Your task to perform on an android device: turn on airplane mode Image 0: 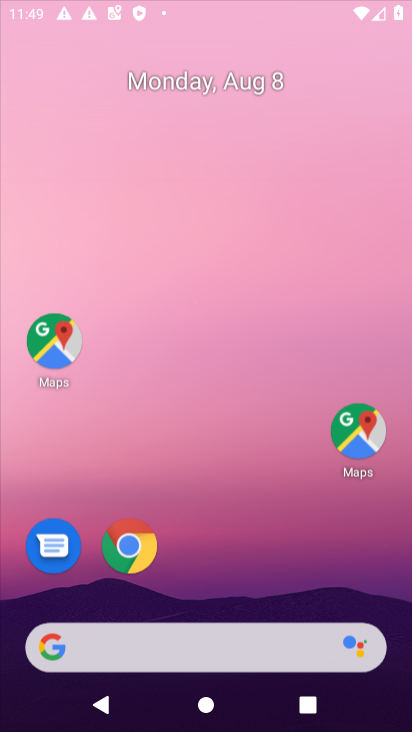
Step 0: click (216, 228)
Your task to perform on an android device: turn on airplane mode Image 1: 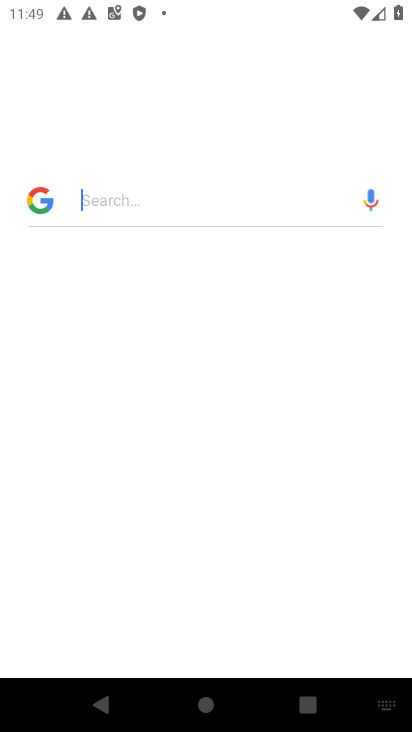
Step 1: drag from (261, 575) to (228, 141)
Your task to perform on an android device: turn on airplane mode Image 2: 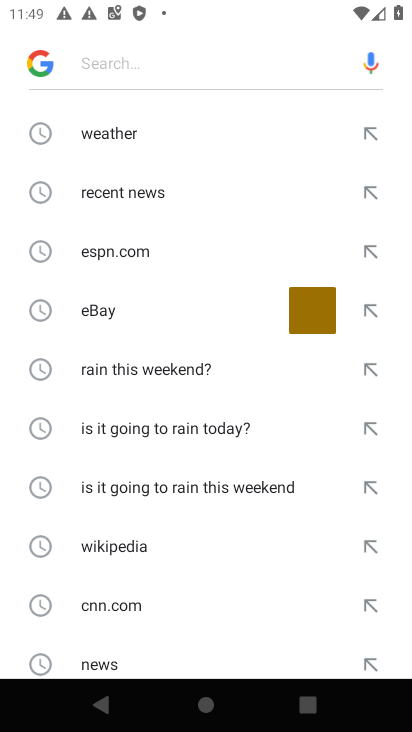
Step 2: press back button
Your task to perform on an android device: turn on airplane mode Image 3: 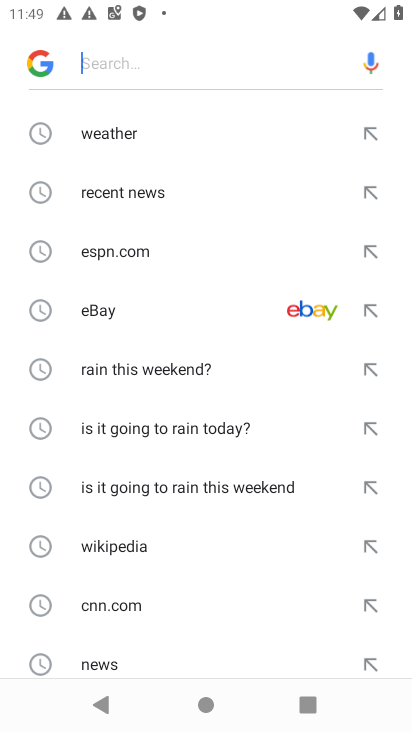
Step 3: press back button
Your task to perform on an android device: turn on airplane mode Image 4: 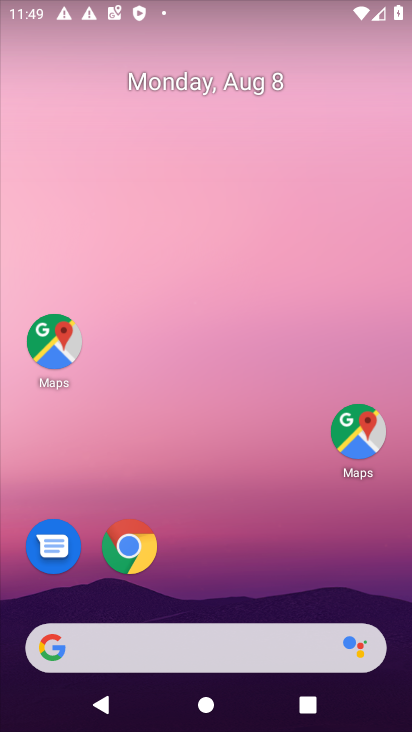
Step 4: drag from (221, 625) to (215, 139)
Your task to perform on an android device: turn on airplane mode Image 5: 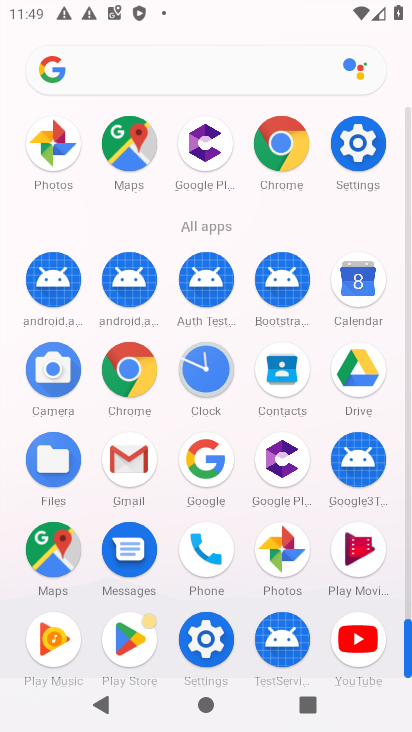
Step 5: click (351, 143)
Your task to perform on an android device: turn on airplane mode Image 6: 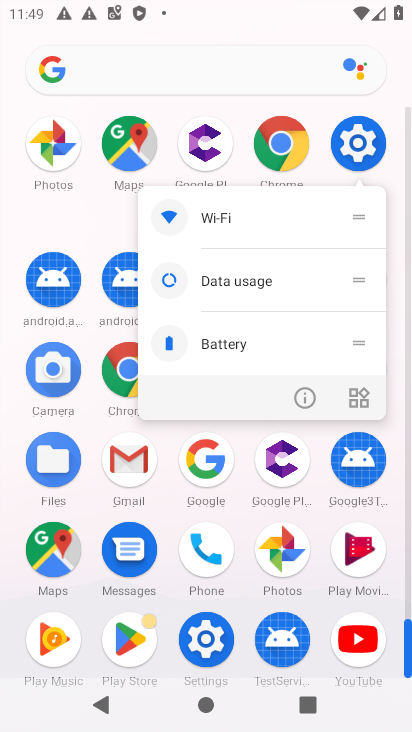
Step 6: click (366, 144)
Your task to perform on an android device: turn on airplane mode Image 7: 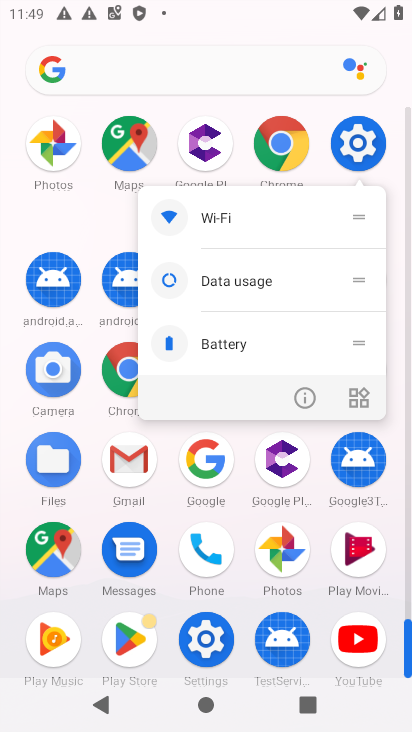
Step 7: click (358, 143)
Your task to perform on an android device: turn on airplane mode Image 8: 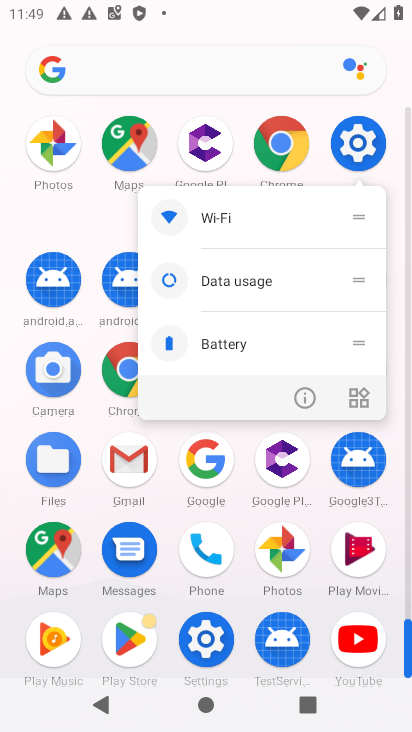
Step 8: click (360, 148)
Your task to perform on an android device: turn on airplane mode Image 9: 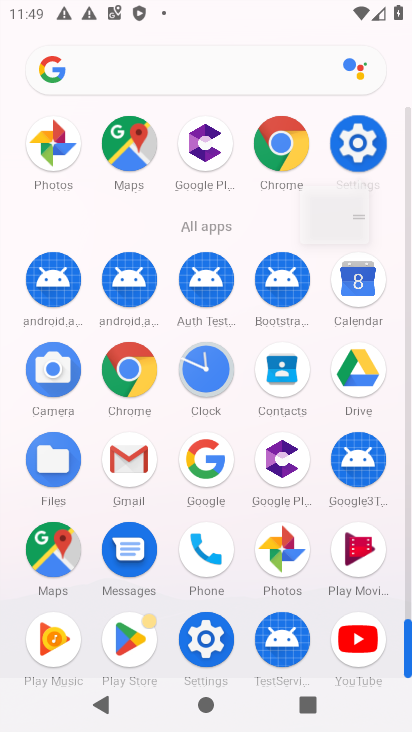
Step 9: click (359, 148)
Your task to perform on an android device: turn on airplane mode Image 10: 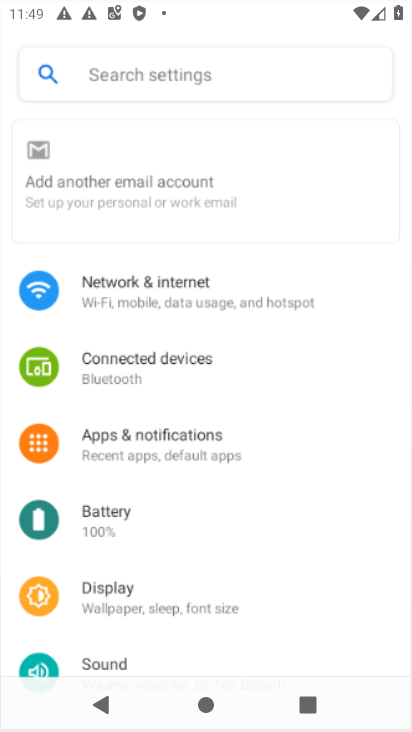
Step 10: click (358, 148)
Your task to perform on an android device: turn on airplane mode Image 11: 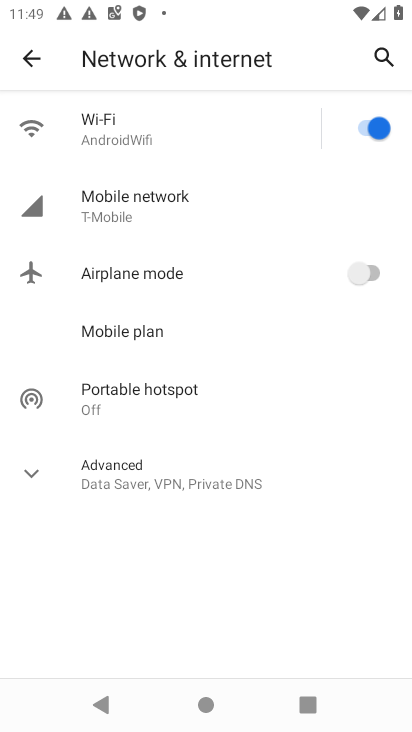
Step 11: click (367, 275)
Your task to perform on an android device: turn on airplane mode Image 12: 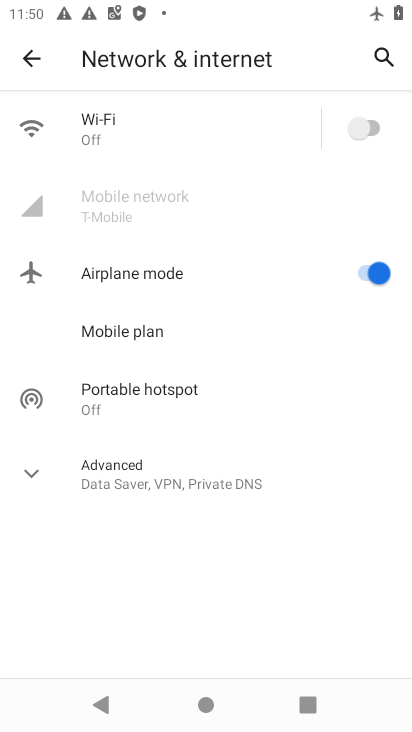
Step 12: click (385, 269)
Your task to perform on an android device: turn on airplane mode Image 13: 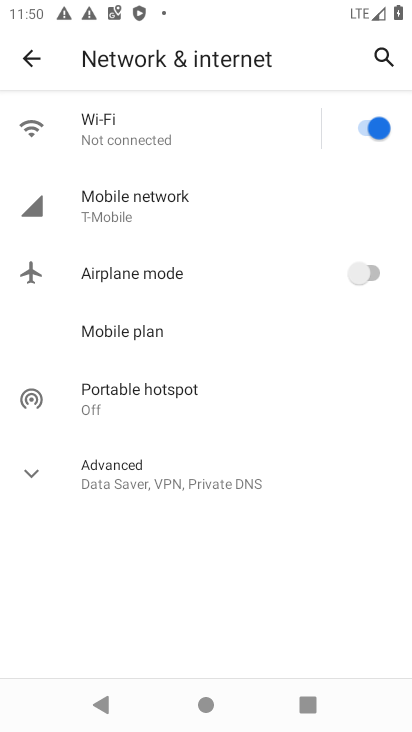
Step 13: click (360, 277)
Your task to perform on an android device: turn on airplane mode Image 14: 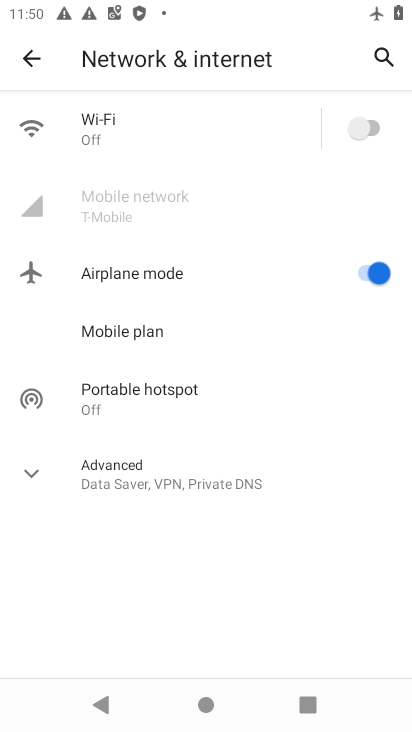
Step 14: task complete